Your task to perform on an android device: turn off smart reply in the gmail app Image 0: 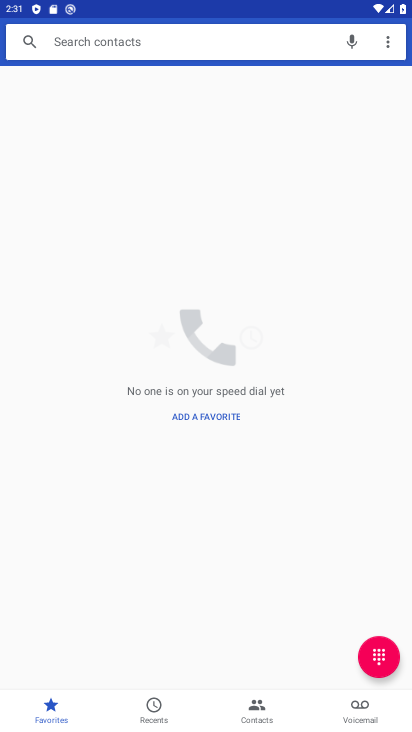
Step 0: press home button
Your task to perform on an android device: turn off smart reply in the gmail app Image 1: 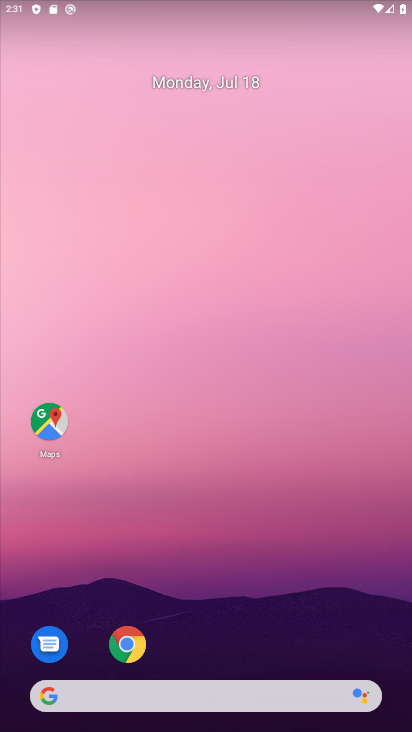
Step 1: drag from (203, 690) to (183, 35)
Your task to perform on an android device: turn off smart reply in the gmail app Image 2: 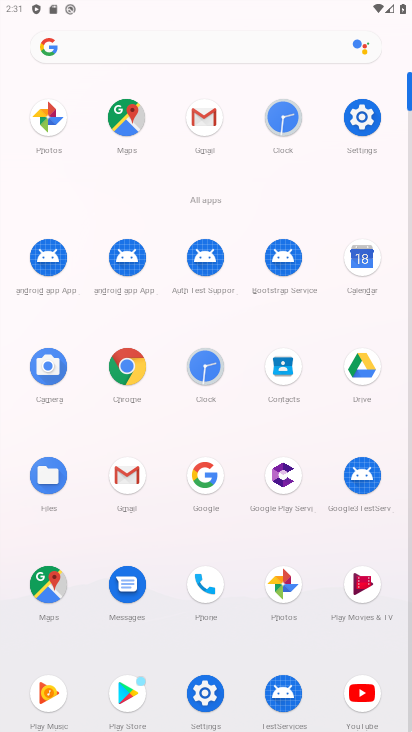
Step 2: click (122, 471)
Your task to perform on an android device: turn off smart reply in the gmail app Image 3: 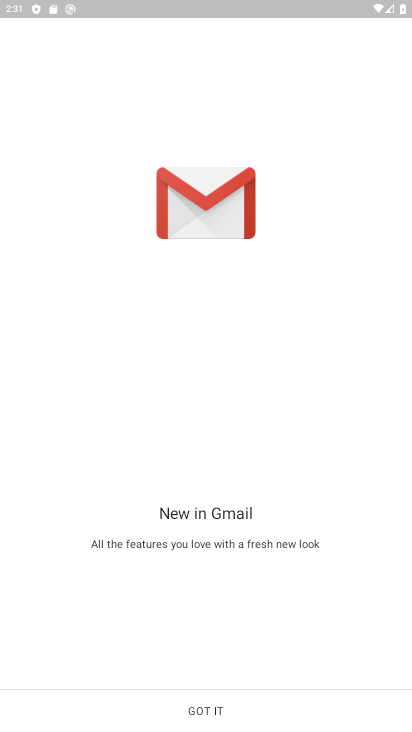
Step 3: click (215, 722)
Your task to perform on an android device: turn off smart reply in the gmail app Image 4: 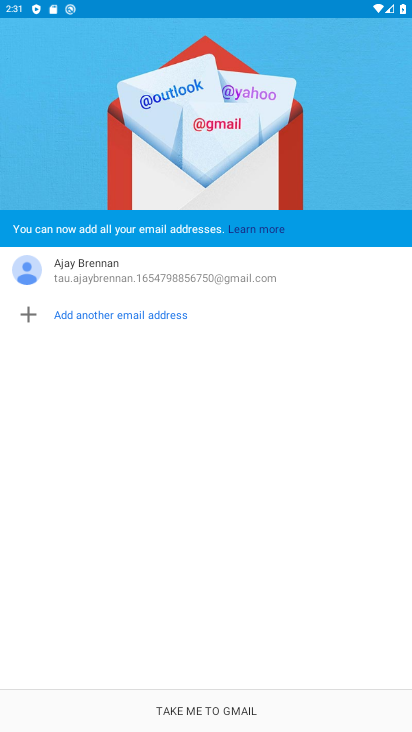
Step 4: click (215, 688)
Your task to perform on an android device: turn off smart reply in the gmail app Image 5: 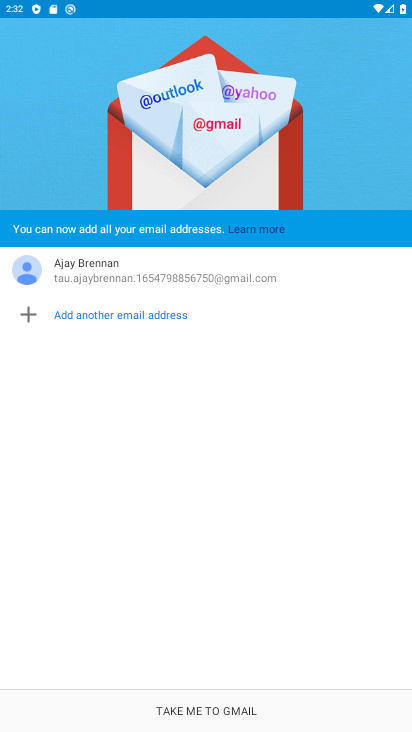
Step 5: click (236, 706)
Your task to perform on an android device: turn off smart reply in the gmail app Image 6: 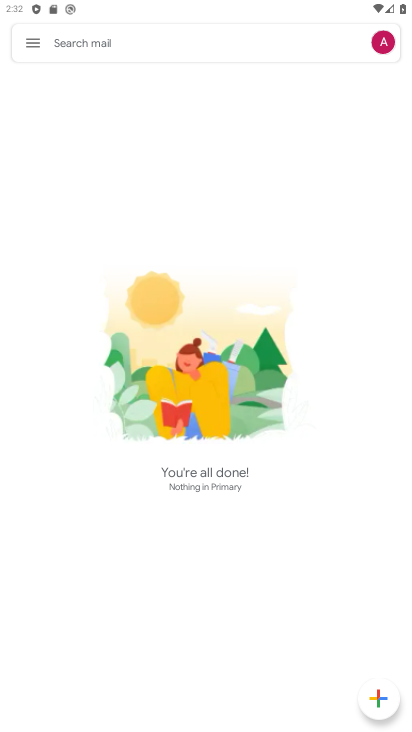
Step 6: click (28, 38)
Your task to perform on an android device: turn off smart reply in the gmail app Image 7: 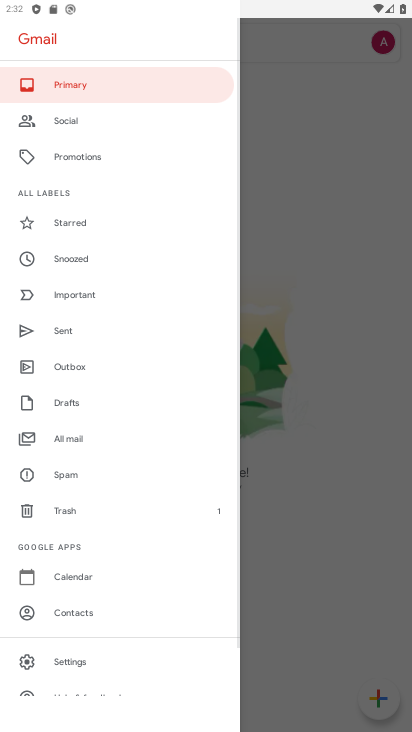
Step 7: click (97, 652)
Your task to perform on an android device: turn off smart reply in the gmail app Image 8: 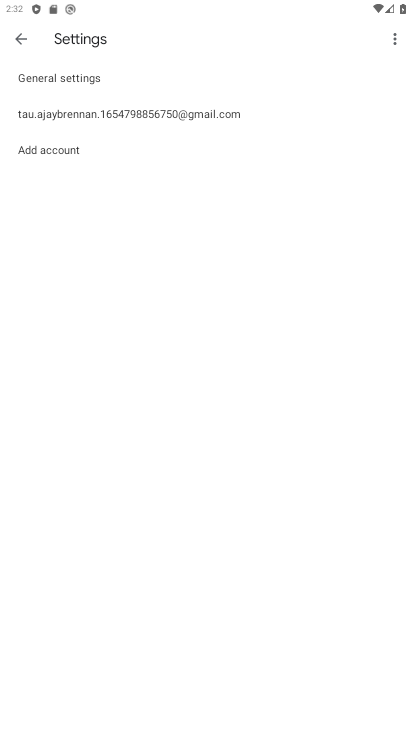
Step 8: click (108, 120)
Your task to perform on an android device: turn off smart reply in the gmail app Image 9: 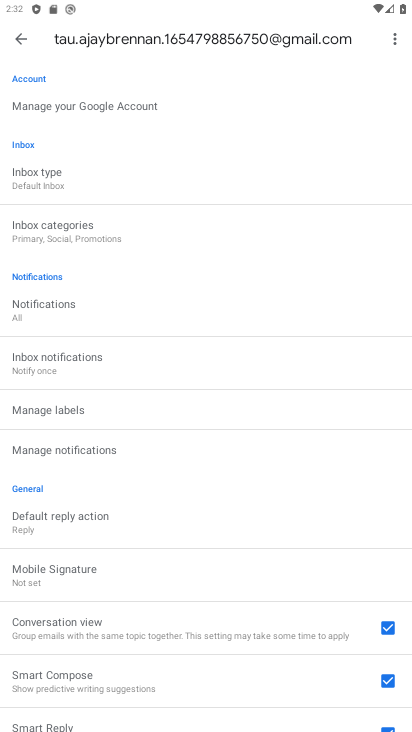
Step 9: drag from (169, 654) to (135, 263)
Your task to perform on an android device: turn off smart reply in the gmail app Image 10: 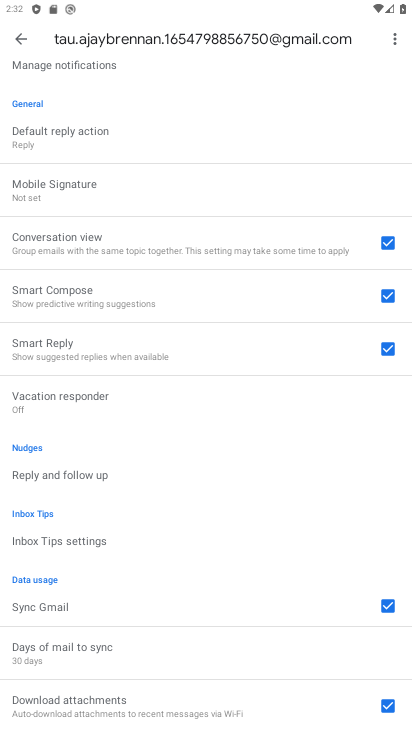
Step 10: click (124, 358)
Your task to perform on an android device: turn off smart reply in the gmail app Image 11: 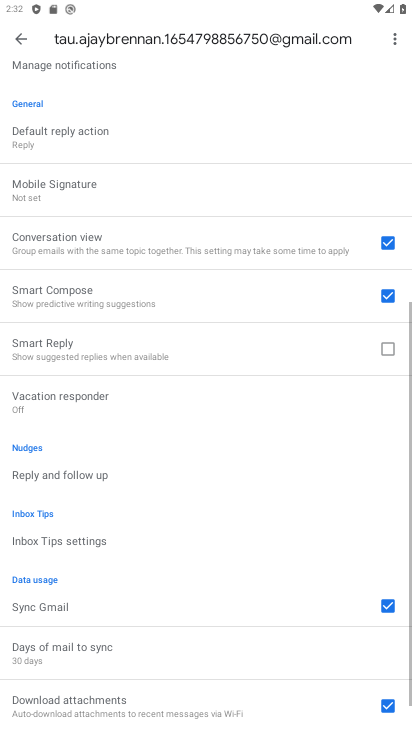
Step 11: task complete